Your task to perform on an android device: install app "Airtel Thanks" Image 0: 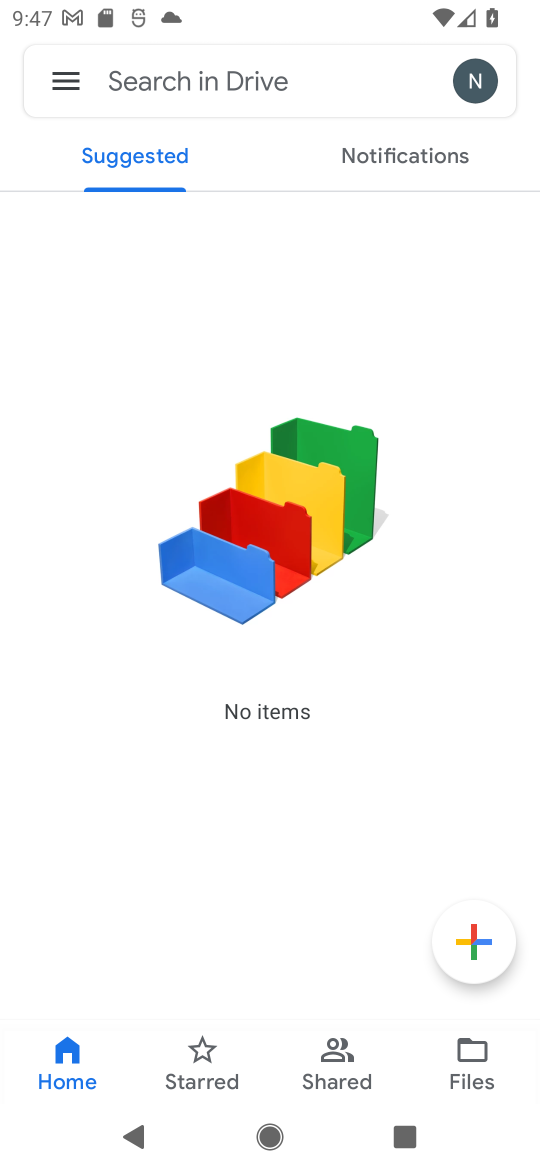
Step 0: press home button
Your task to perform on an android device: install app "Airtel Thanks" Image 1: 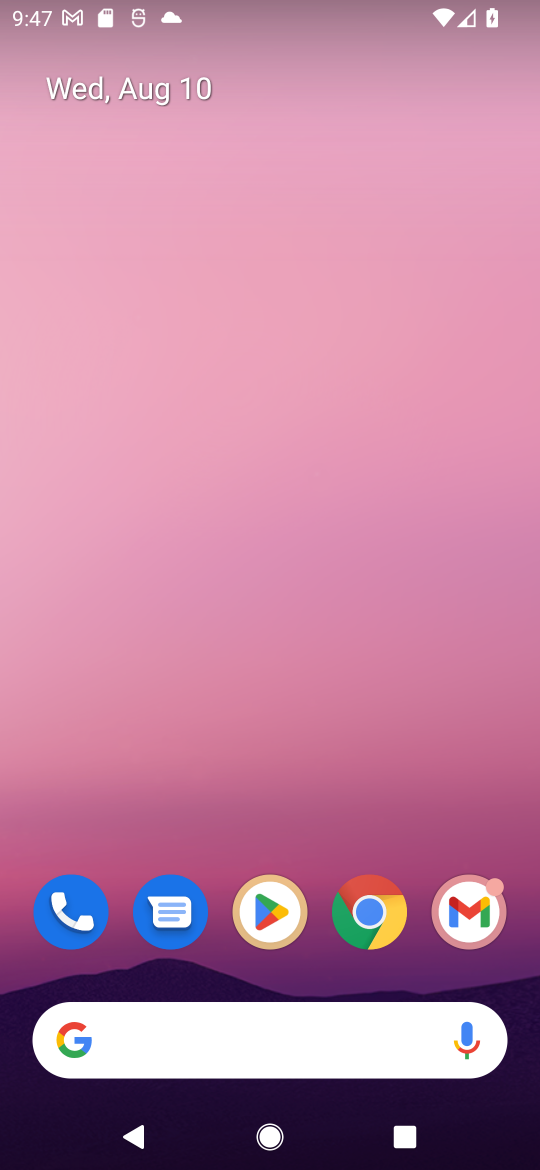
Step 1: drag from (527, 1015) to (179, 33)
Your task to perform on an android device: install app "Airtel Thanks" Image 2: 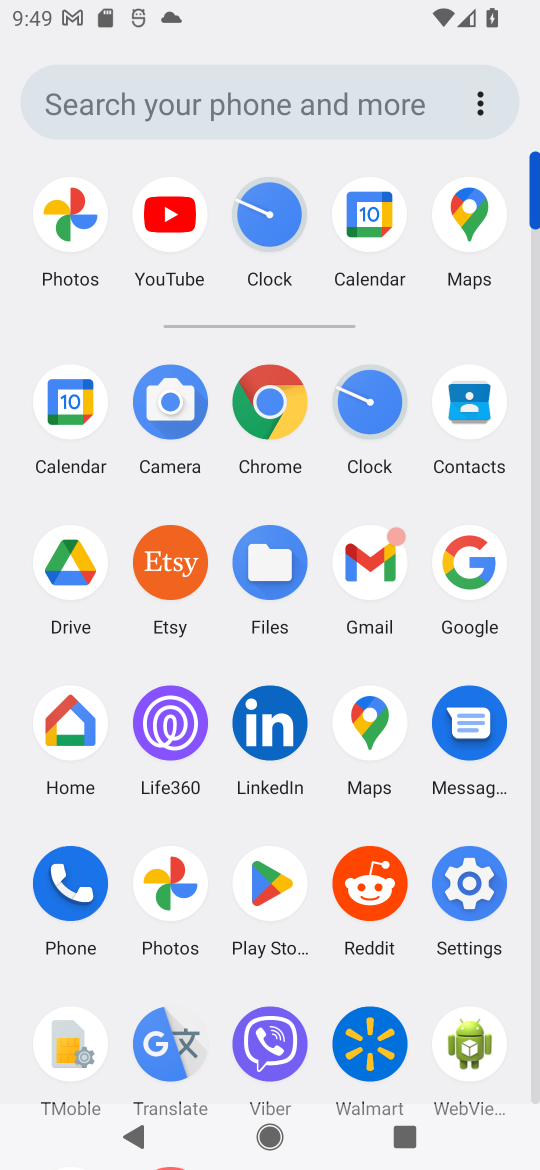
Step 2: click (287, 894)
Your task to perform on an android device: install app "Airtel Thanks" Image 3: 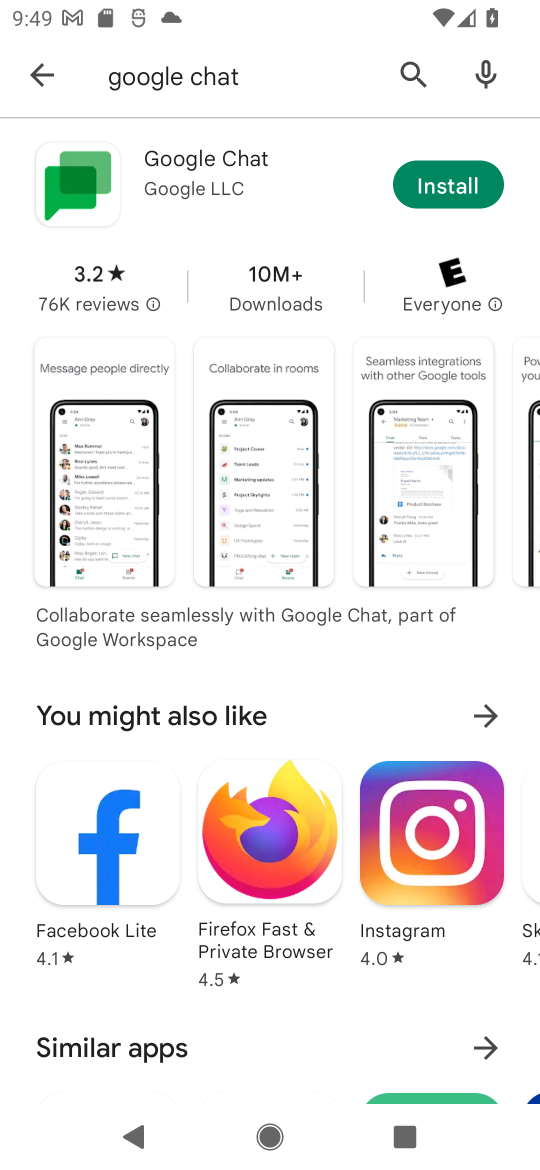
Step 3: press back button
Your task to perform on an android device: install app "Airtel Thanks" Image 4: 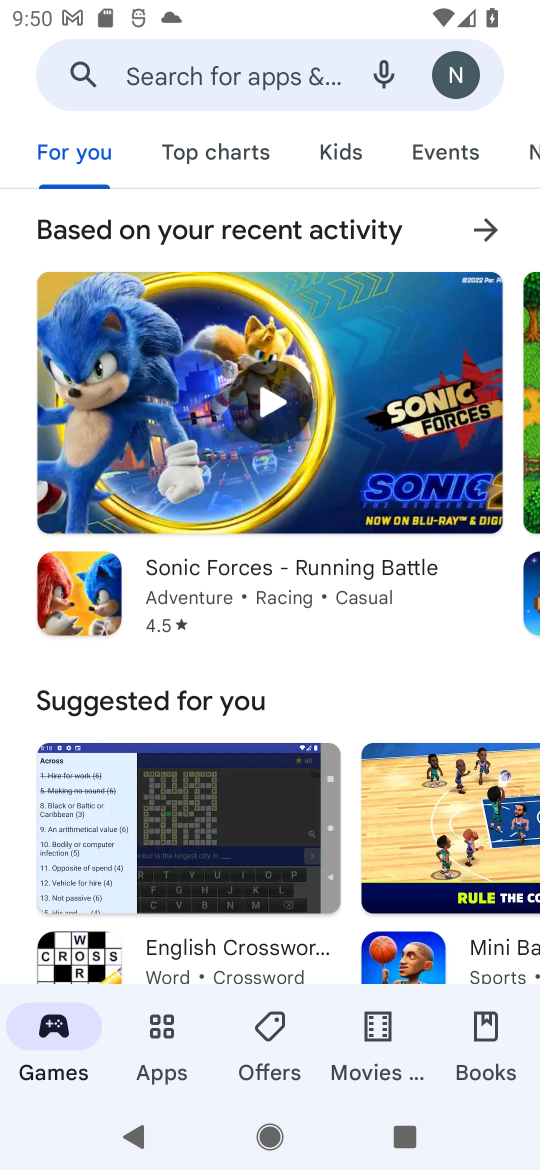
Step 4: click (194, 54)
Your task to perform on an android device: install app "Airtel Thanks" Image 5: 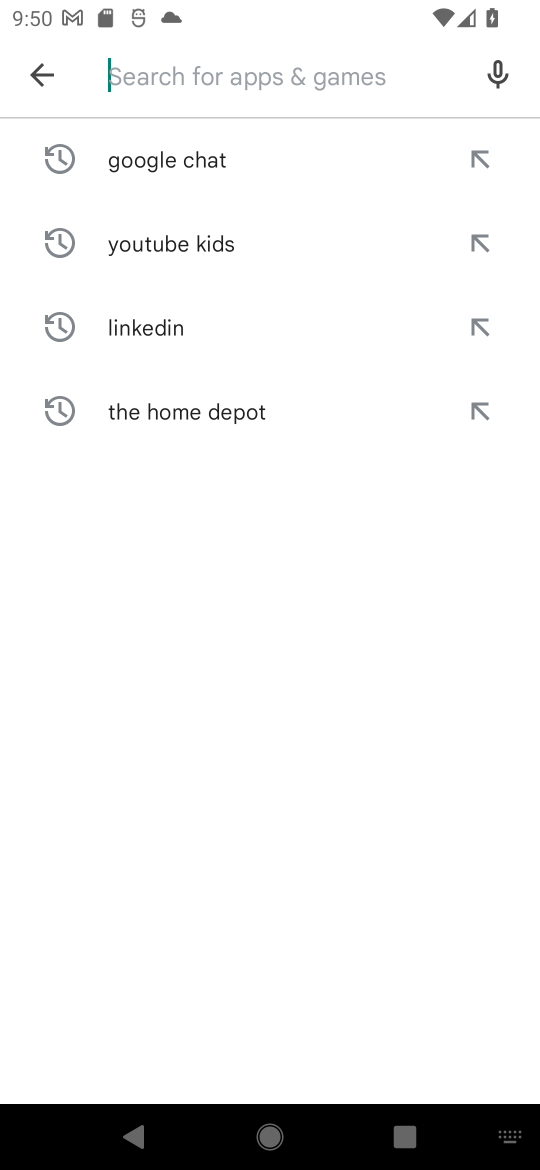
Step 5: type "Airtel Thanks"
Your task to perform on an android device: install app "Airtel Thanks" Image 6: 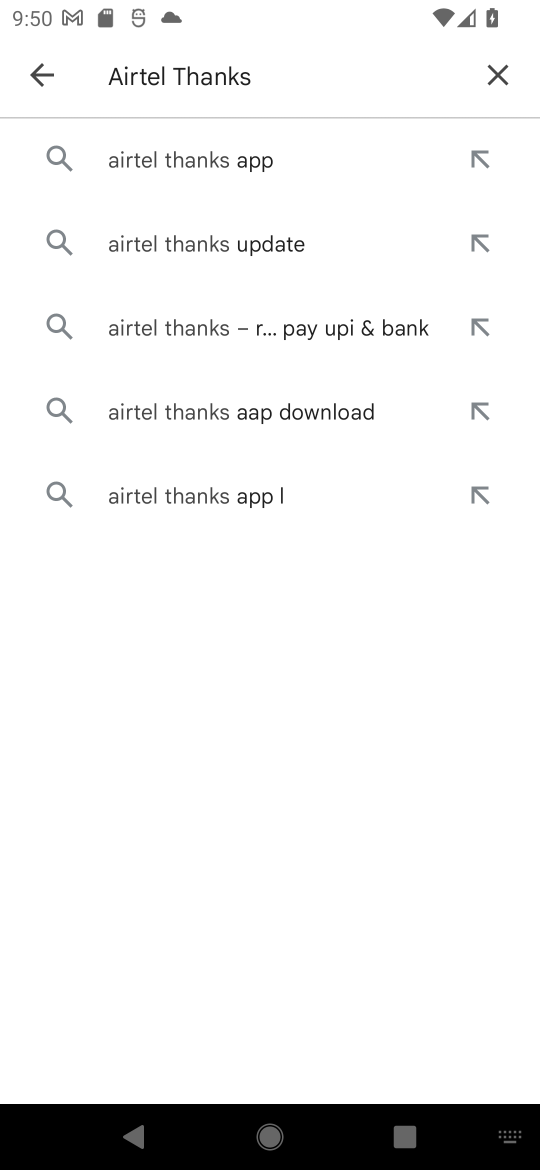
Step 6: click (122, 157)
Your task to perform on an android device: install app "Airtel Thanks" Image 7: 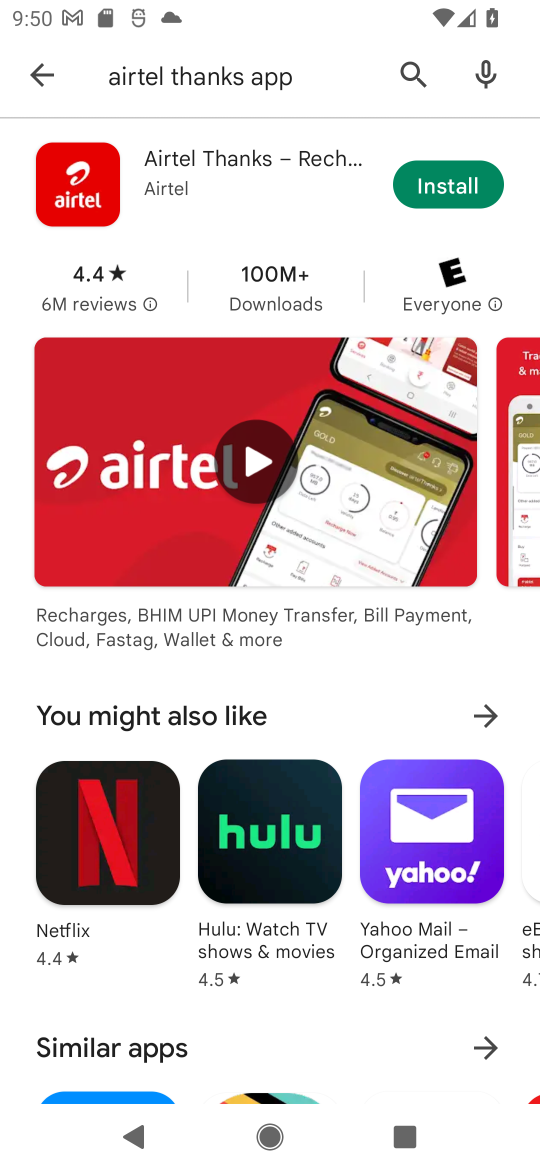
Step 7: click (421, 177)
Your task to perform on an android device: install app "Airtel Thanks" Image 8: 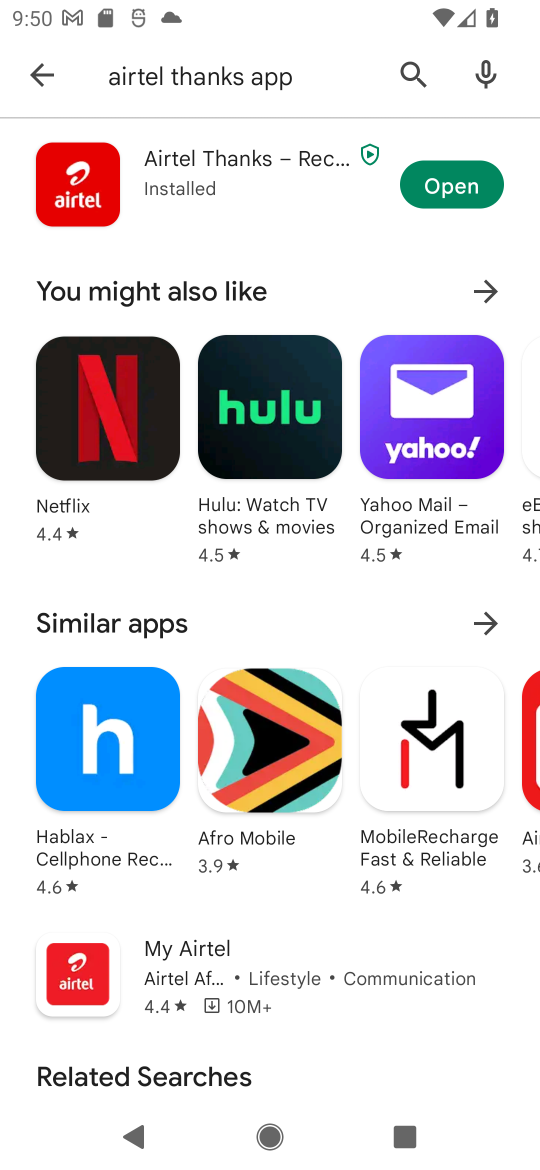
Step 8: task complete